Your task to perform on an android device: turn on sleep mode Image 0: 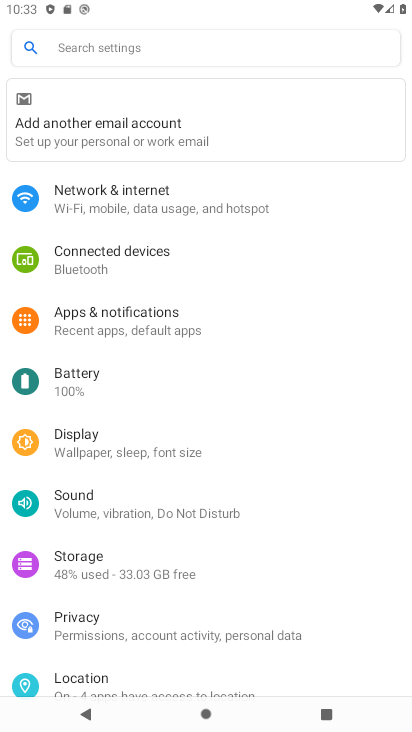
Step 0: click (182, 45)
Your task to perform on an android device: turn on sleep mode Image 1: 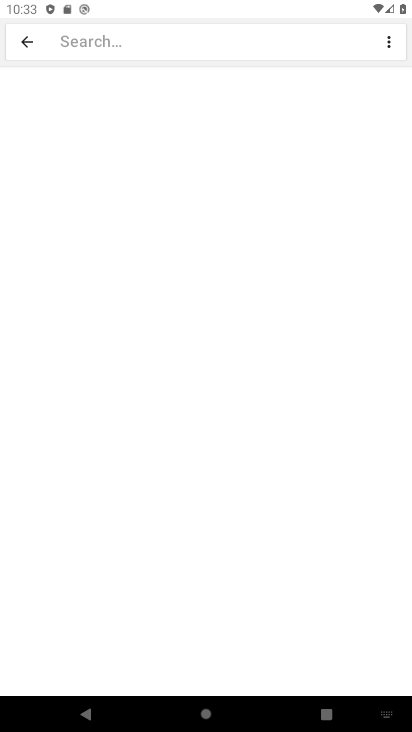
Step 1: type "sleep mode"
Your task to perform on an android device: turn on sleep mode Image 2: 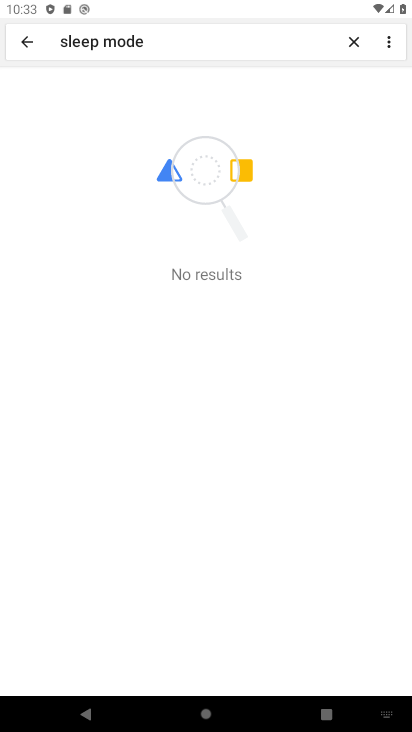
Step 2: task complete